Your task to perform on an android device: open a new tab in the chrome app Image 0: 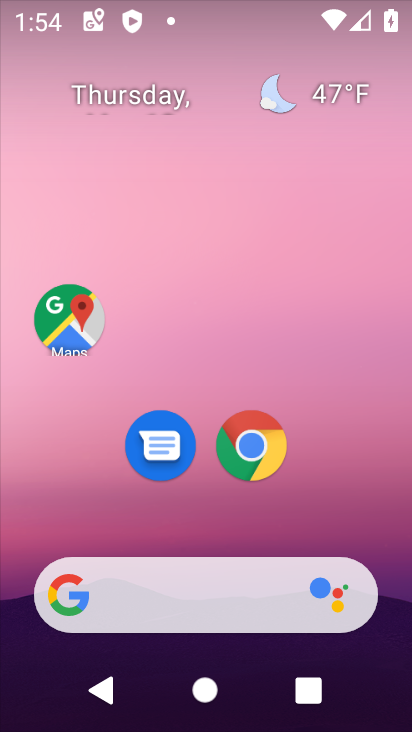
Step 0: click (268, 453)
Your task to perform on an android device: open a new tab in the chrome app Image 1: 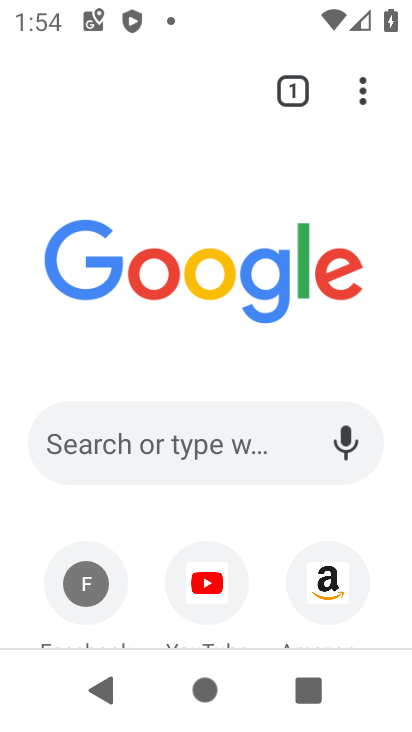
Step 1: click (299, 83)
Your task to perform on an android device: open a new tab in the chrome app Image 2: 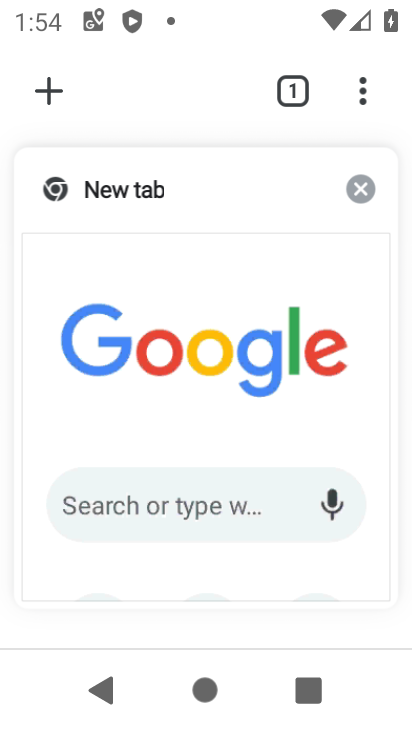
Step 2: click (60, 98)
Your task to perform on an android device: open a new tab in the chrome app Image 3: 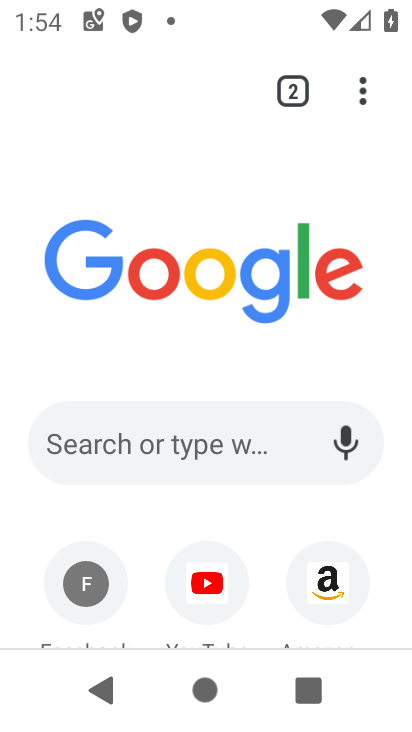
Step 3: task complete